Your task to perform on an android device: check google app version Image 0: 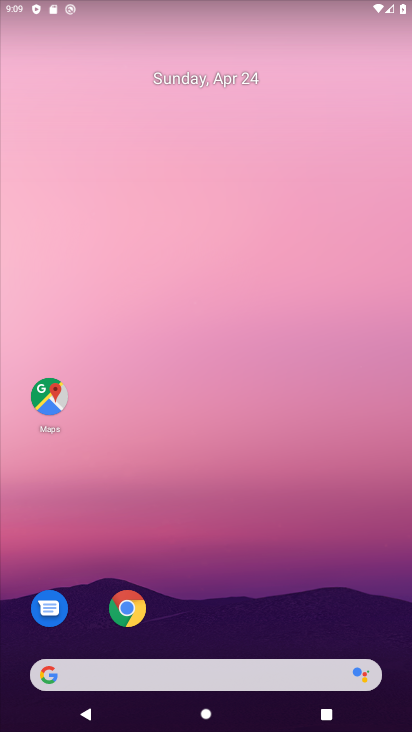
Step 0: drag from (316, 609) to (319, 116)
Your task to perform on an android device: check google app version Image 1: 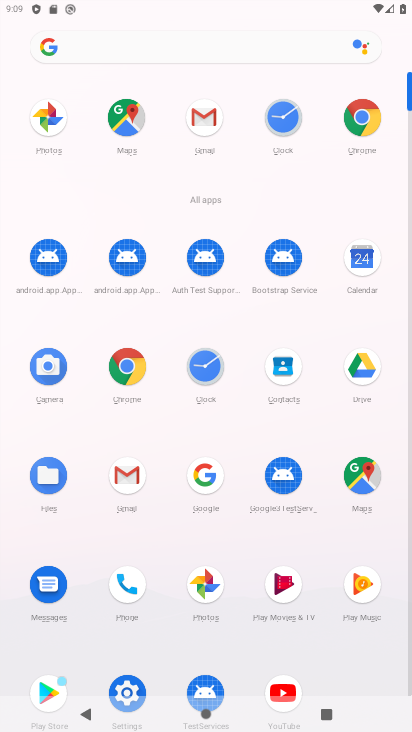
Step 1: click (202, 462)
Your task to perform on an android device: check google app version Image 2: 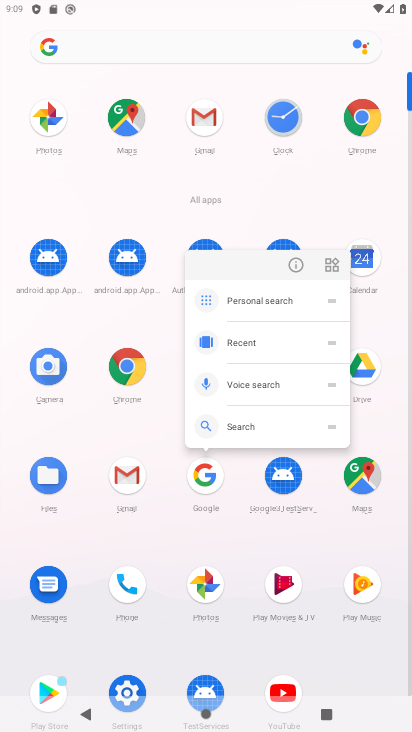
Step 2: click (195, 476)
Your task to perform on an android device: check google app version Image 3: 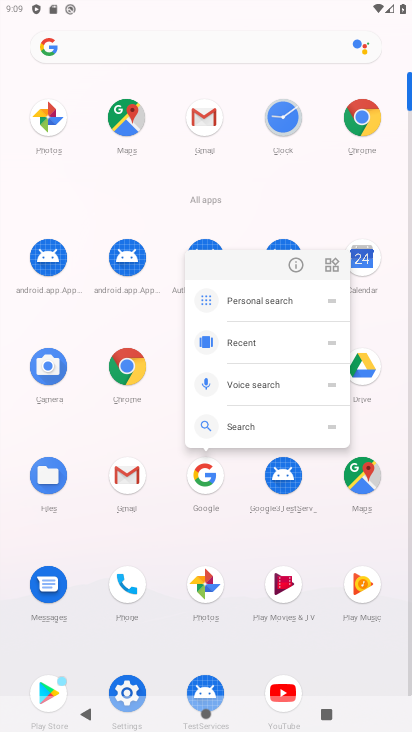
Step 3: click (203, 476)
Your task to perform on an android device: check google app version Image 4: 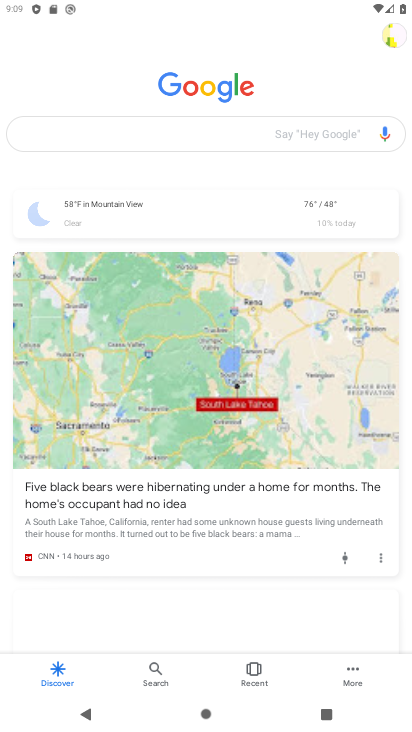
Step 4: click (346, 675)
Your task to perform on an android device: check google app version Image 5: 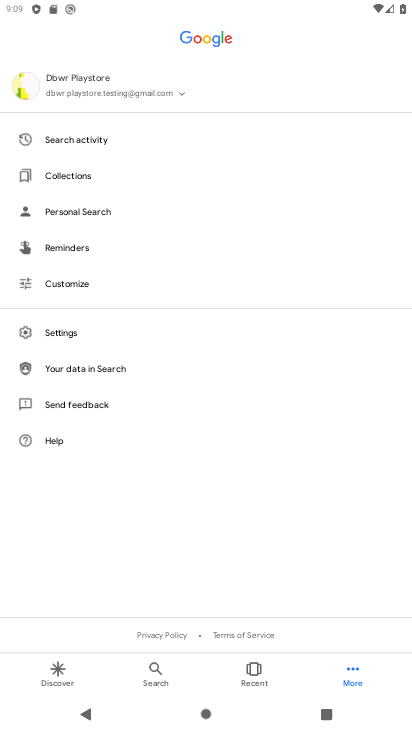
Step 5: click (70, 328)
Your task to perform on an android device: check google app version Image 6: 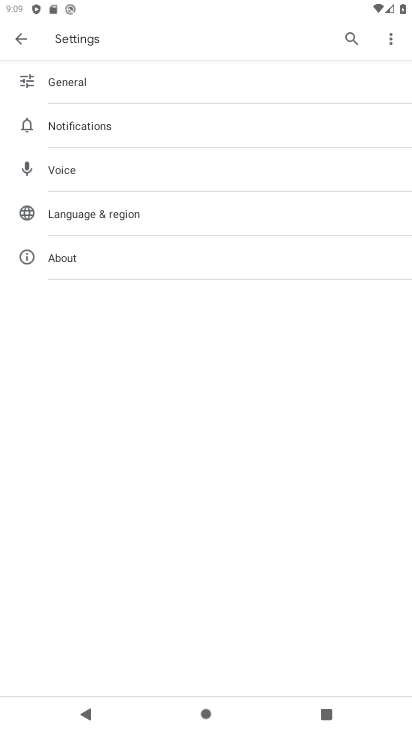
Step 6: click (159, 238)
Your task to perform on an android device: check google app version Image 7: 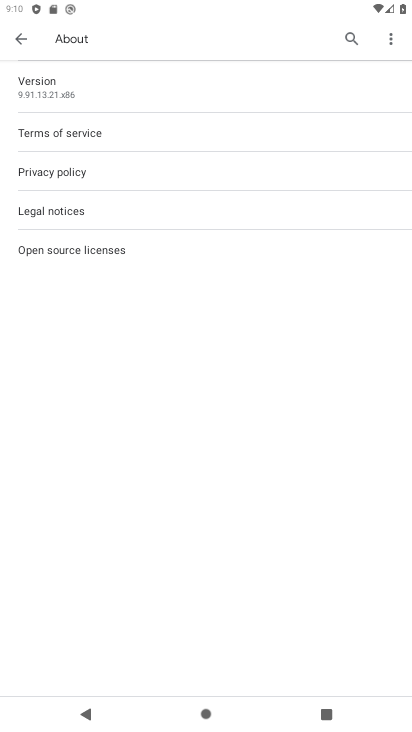
Step 7: task complete